Your task to perform on an android device: toggle data saver in the chrome app Image 0: 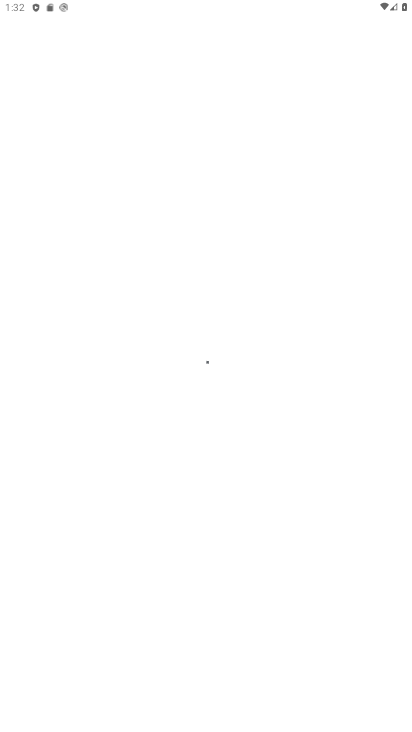
Step 0: press home button
Your task to perform on an android device: toggle data saver in the chrome app Image 1: 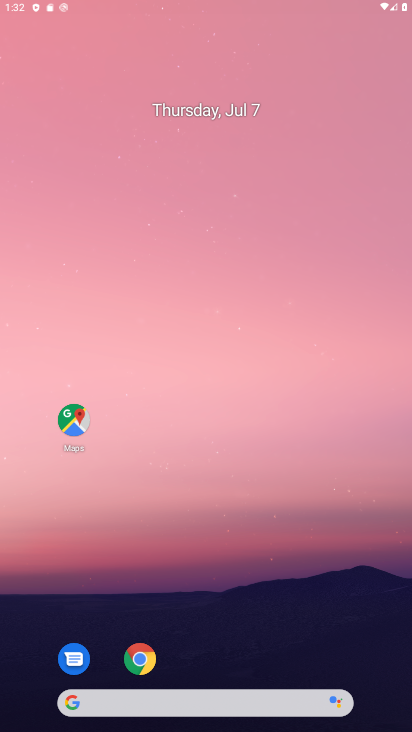
Step 1: click (139, 659)
Your task to perform on an android device: toggle data saver in the chrome app Image 2: 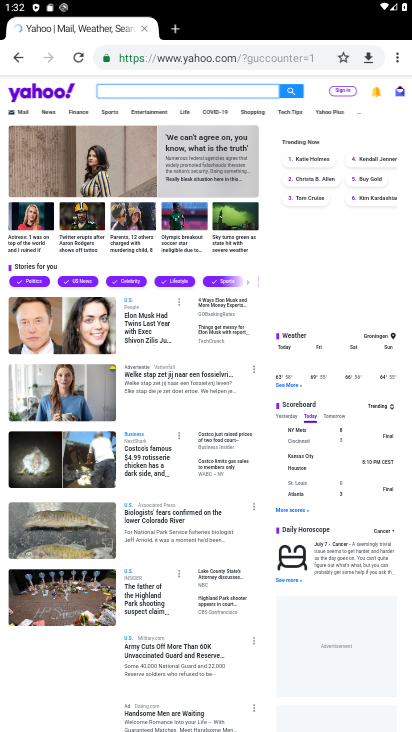
Step 2: click (391, 57)
Your task to perform on an android device: toggle data saver in the chrome app Image 3: 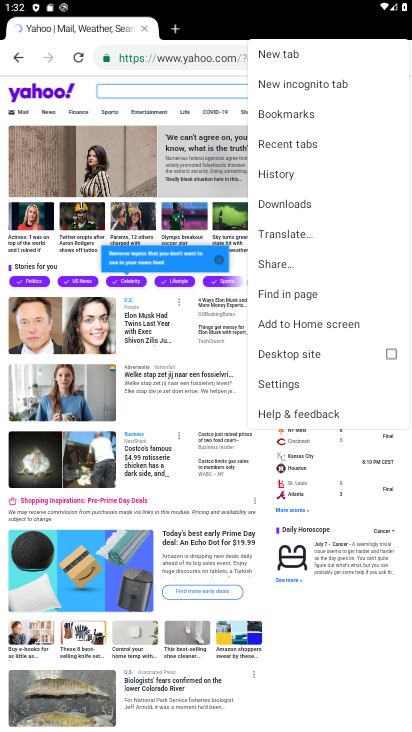
Step 3: click (273, 388)
Your task to perform on an android device: toggle data saver in the chrome app Image 4: 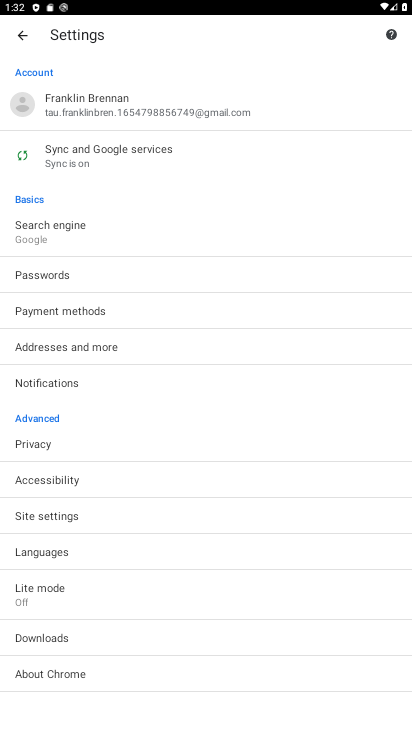
Step 4: click (40, 605)
Your task to perform on an android device: toggle data saver in the chrome app Image 5: 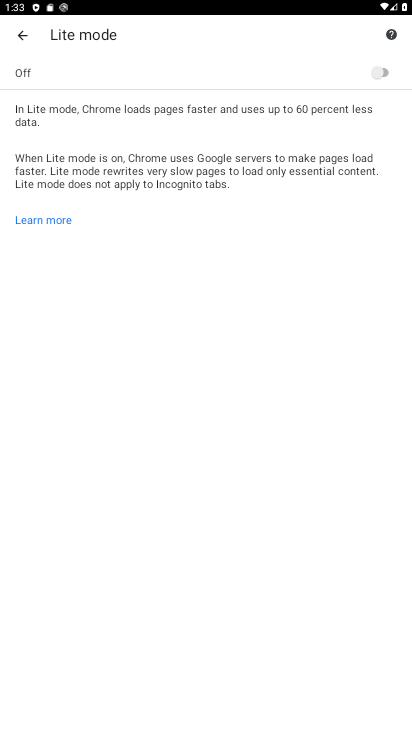
Step 5: click (381, 70)
Your task to perform on an android device: toggle data saver in the chrome app Image 6: 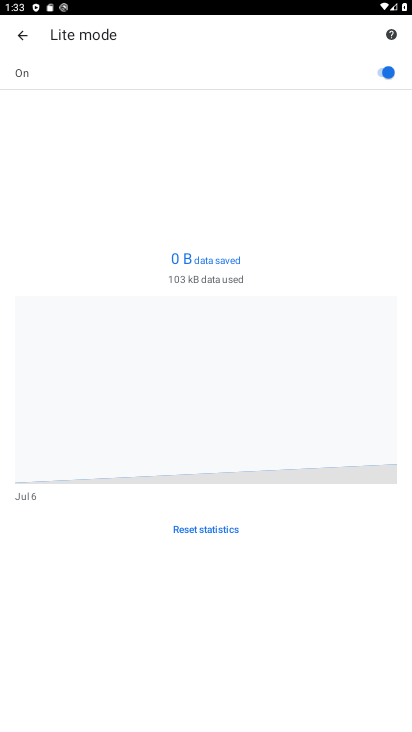
Step 6: task complete